Your task to perform on an android device: Open display settings Image 0: 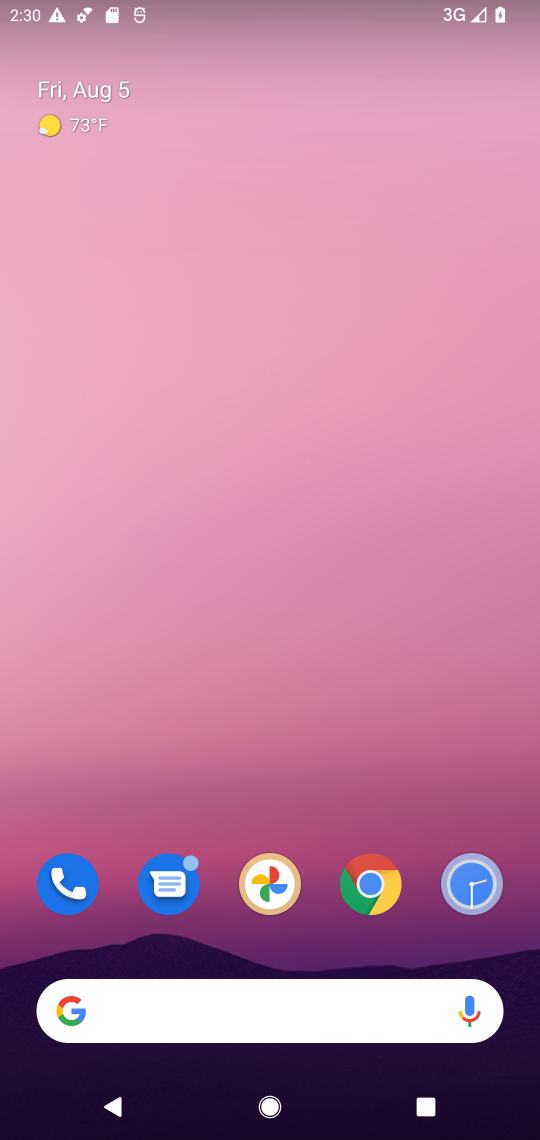
Step 0: drag from (493, 984) to (320, 21)
Your task to perform on an android device: Open display settings Image 1: 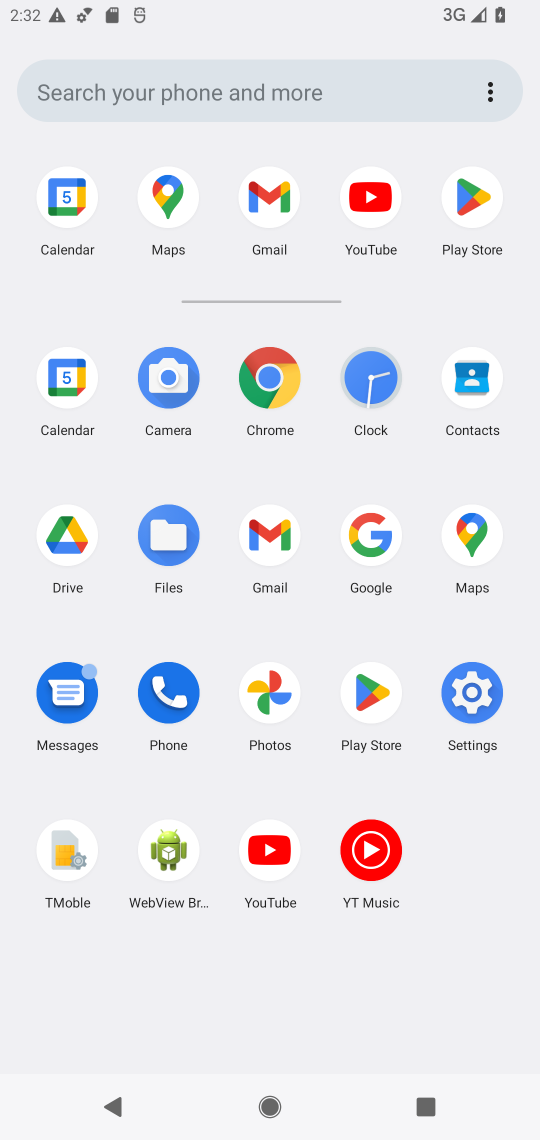
Step 1: click (474, 680)
Your task to perform on an android device: Open display settings Image 2: 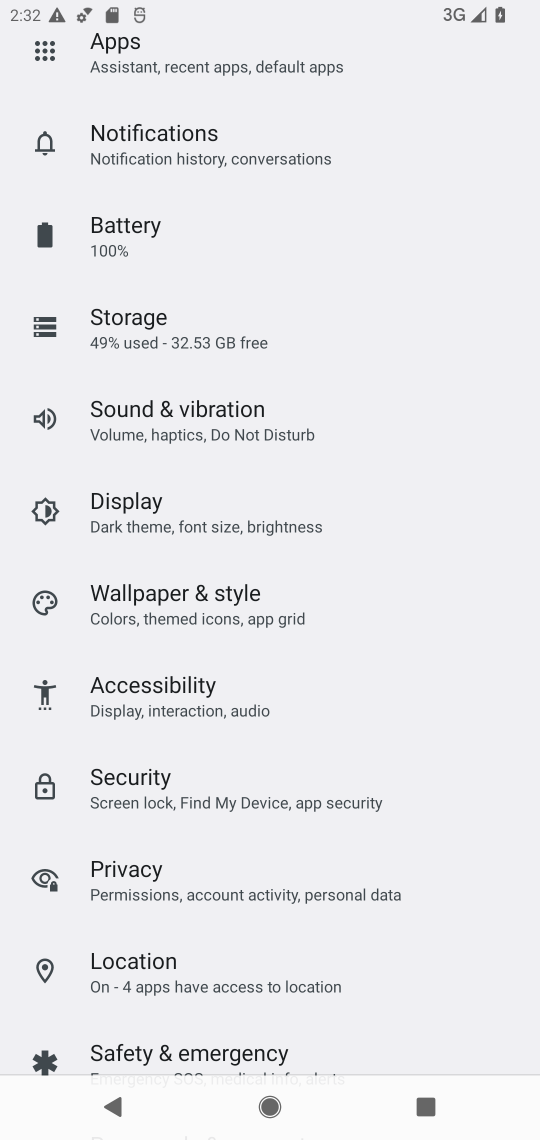
Step 2: click (151, 519)
Your task to perform on an android device: Open display settings Image 3: 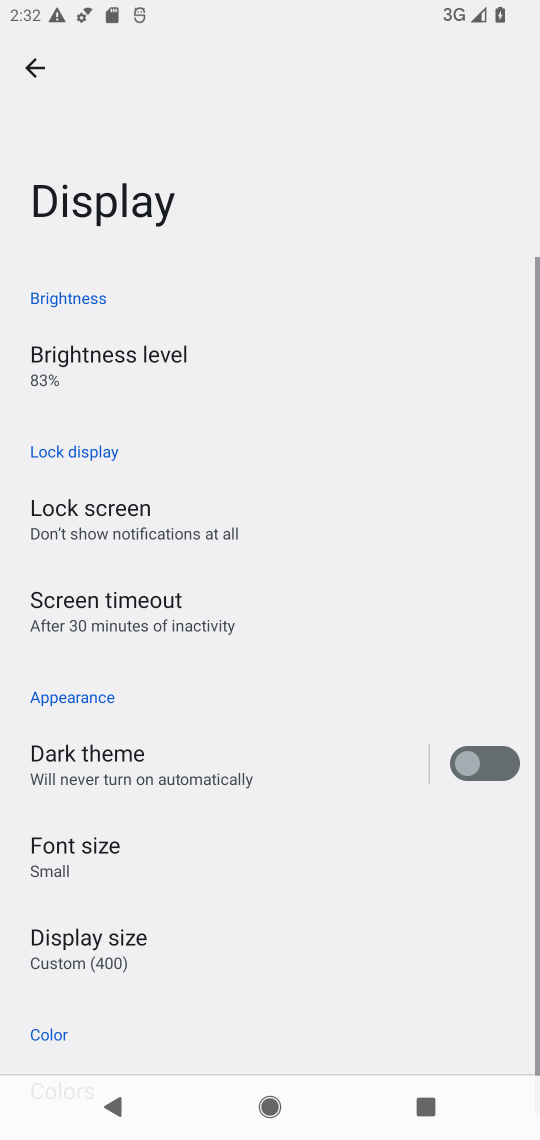
Step 3: task complete